Your task to perform on an android device: What is the speed of a train? Image 0: 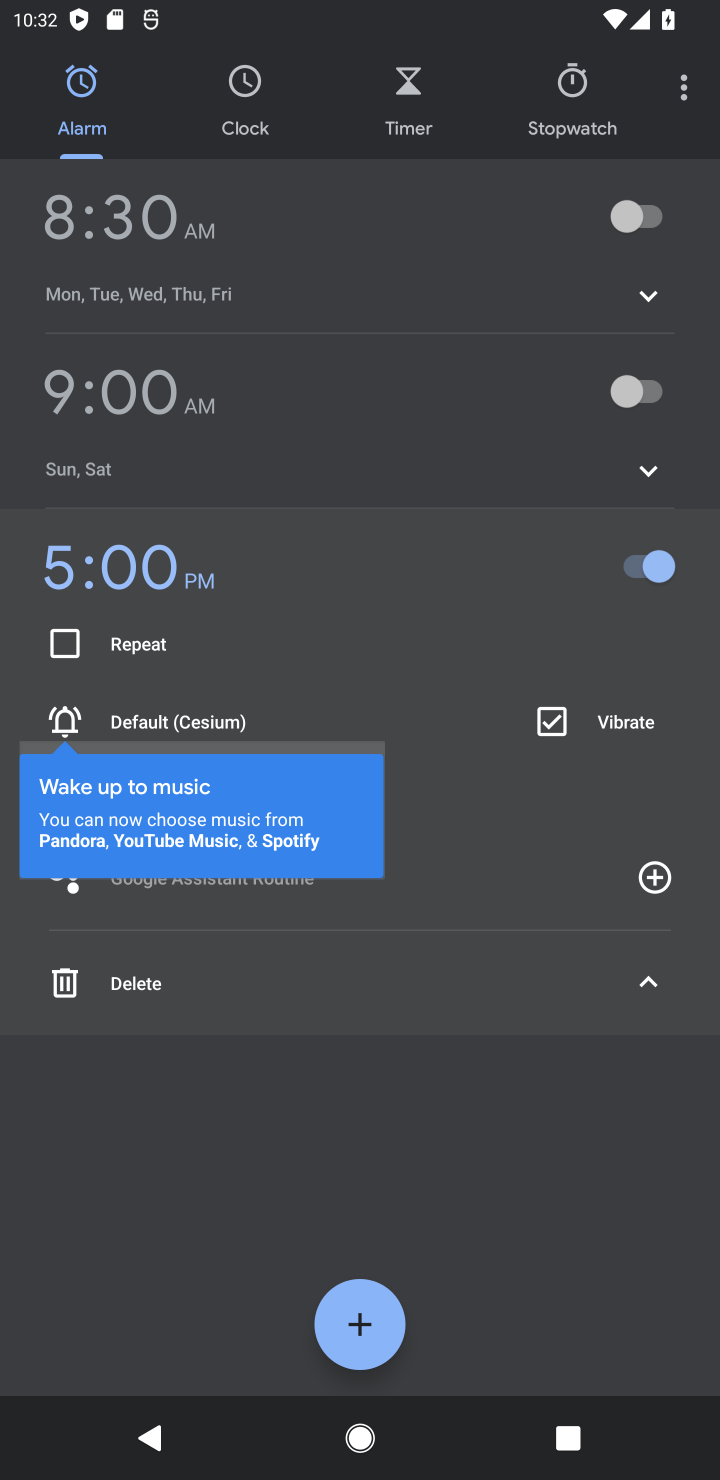
Step 0: press home button
Your task to perform on an android device: What is the speed of a train? Image 1: 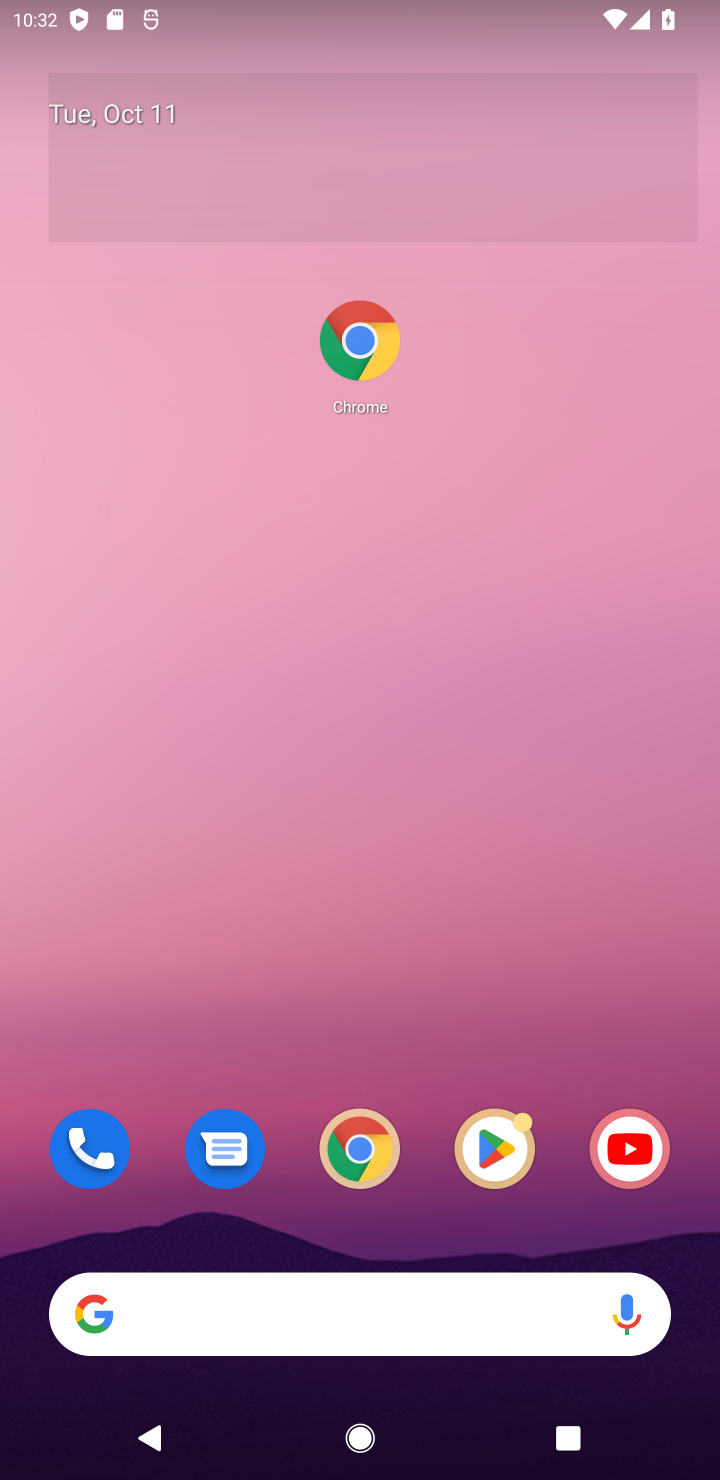
Step 1: drag from (397, 825) to (540, 431)
Your task to perform on an android device: What is the speed of a train? Image 2: 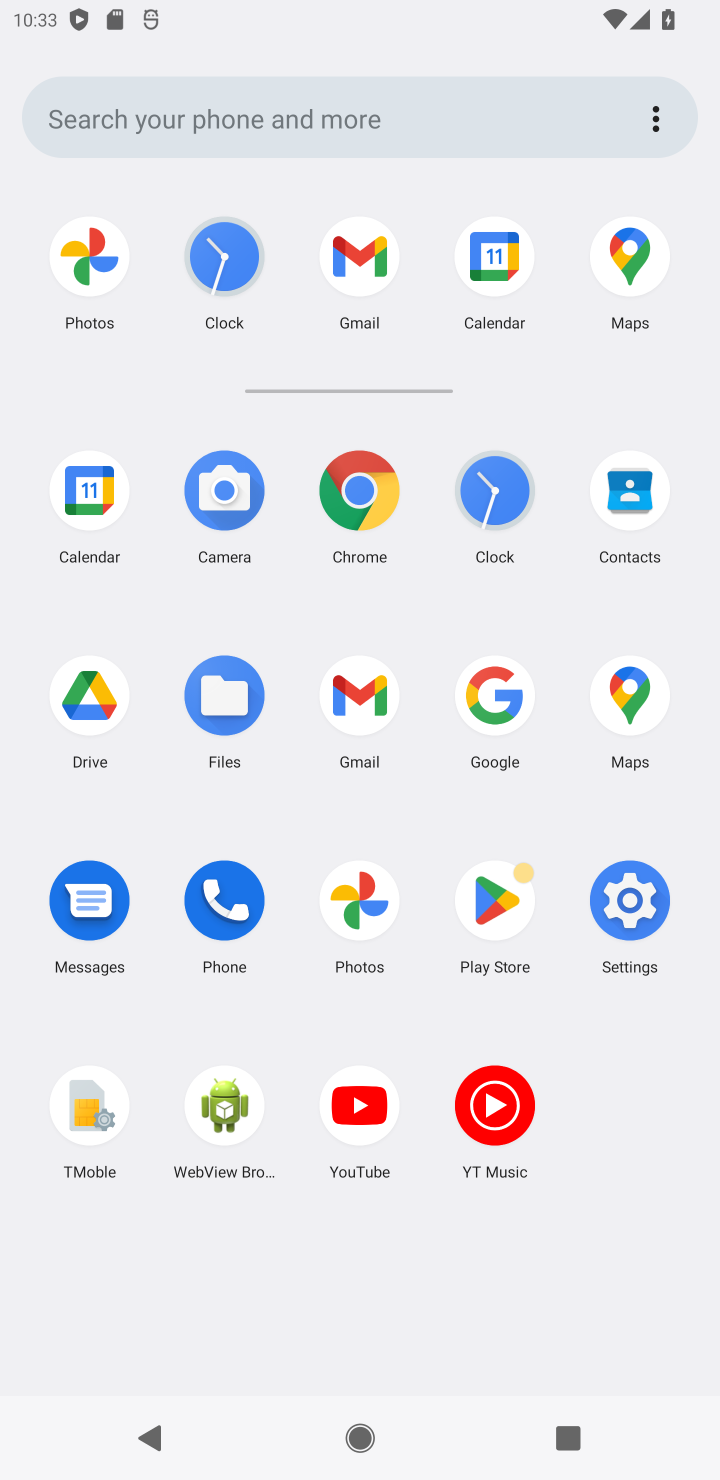
Step 2: click (356, 512)
Your task to perform on an android device: What is the speed of a train? Image 3: 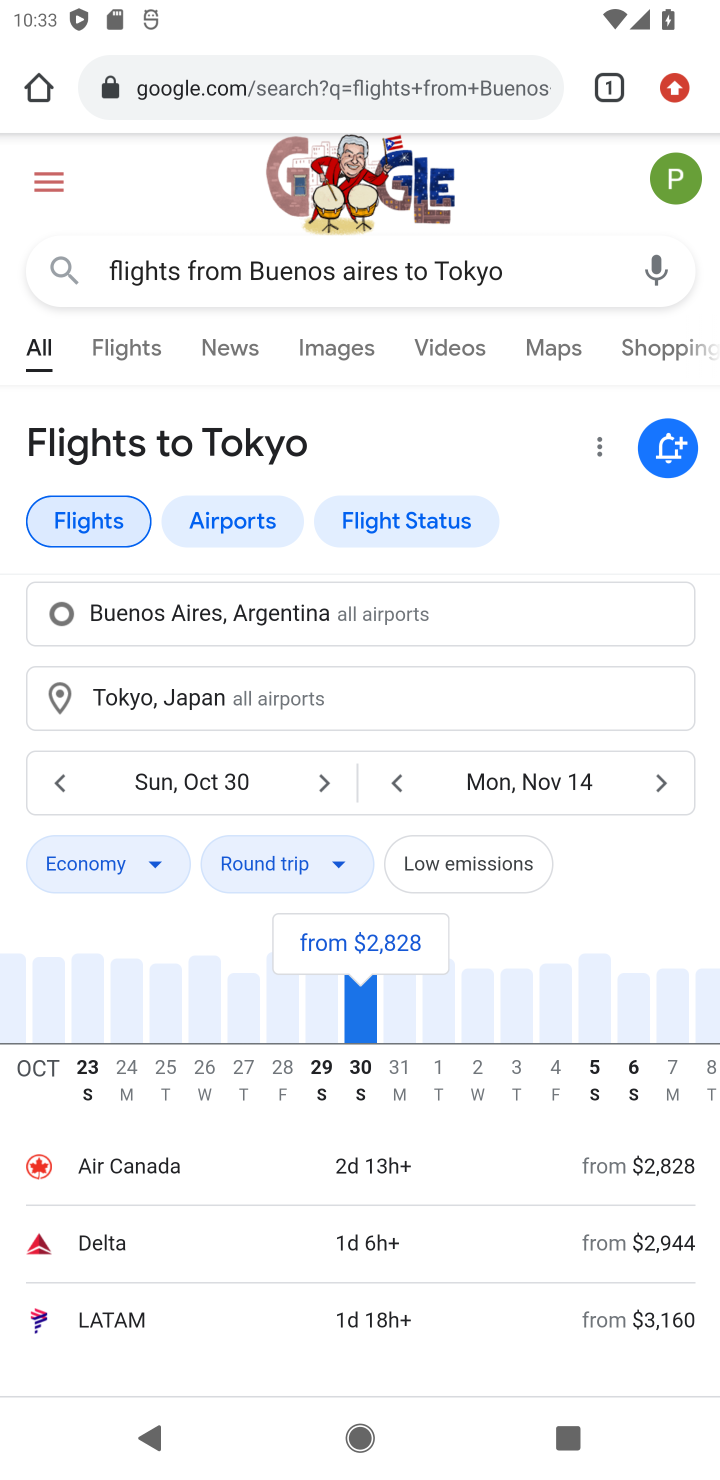
Step 3: click (522, 82)
Your task to perform on an android device: What is the speed of a train? Image 4: 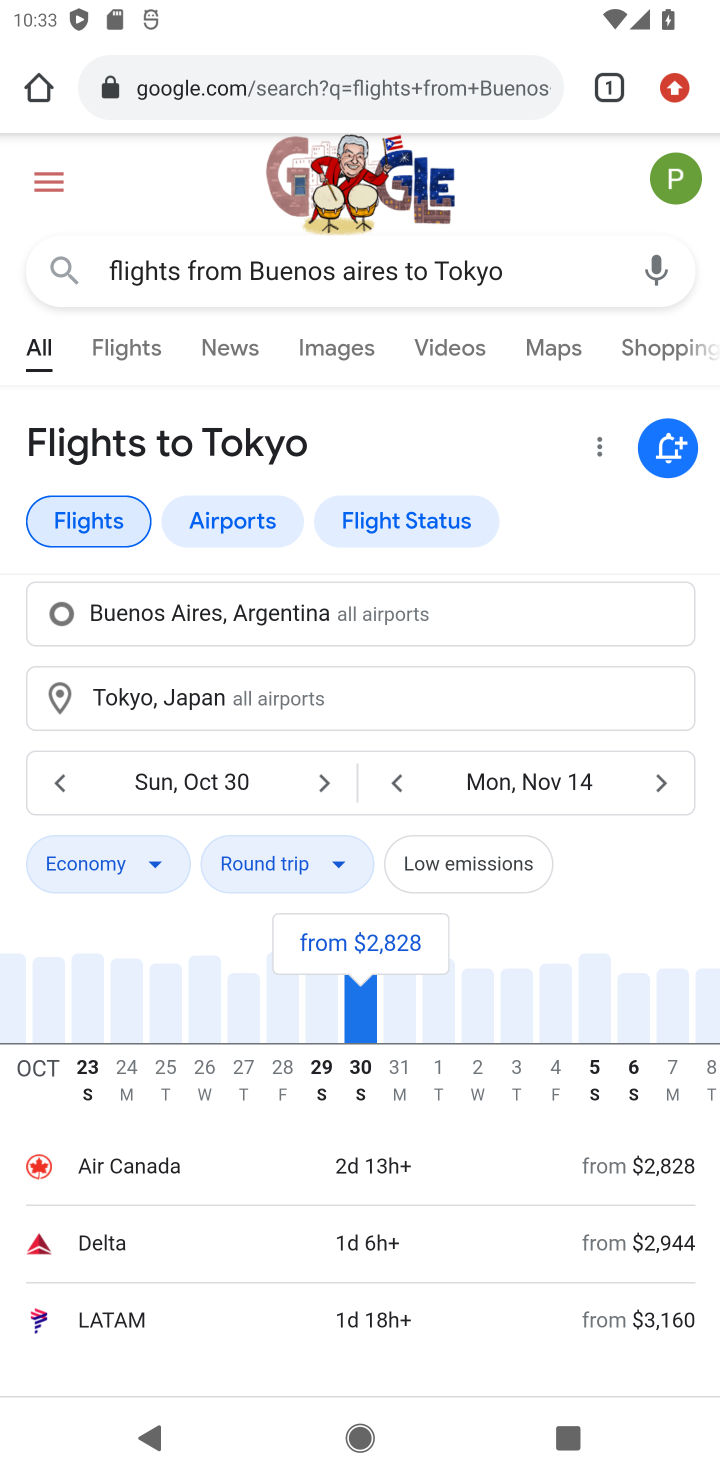
Step 4: click (522, 82)
Your task to perform on an android device: What is the speed of a train? Image 5: 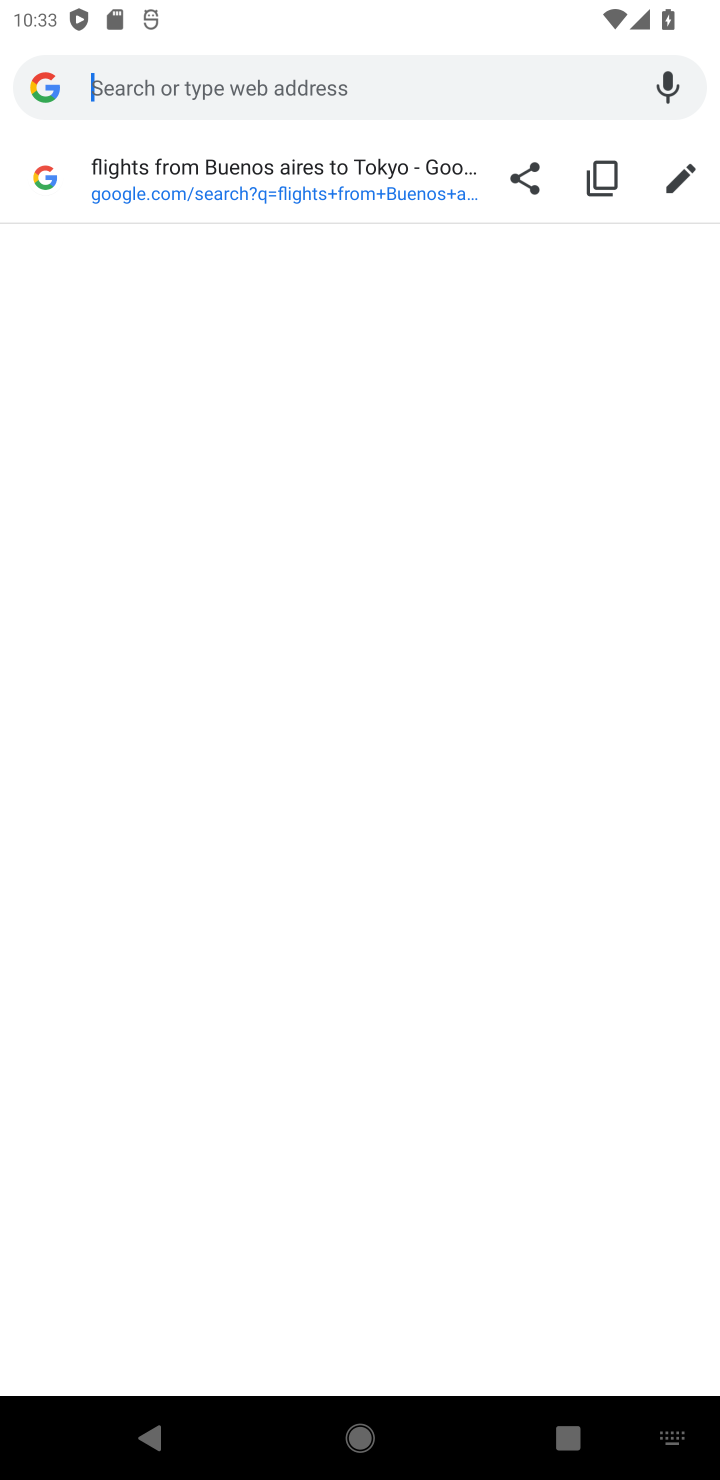
Step 5: type "What is the speed of a train?"
Your task to perform on an android device: What is the speed of a train? Image 6: 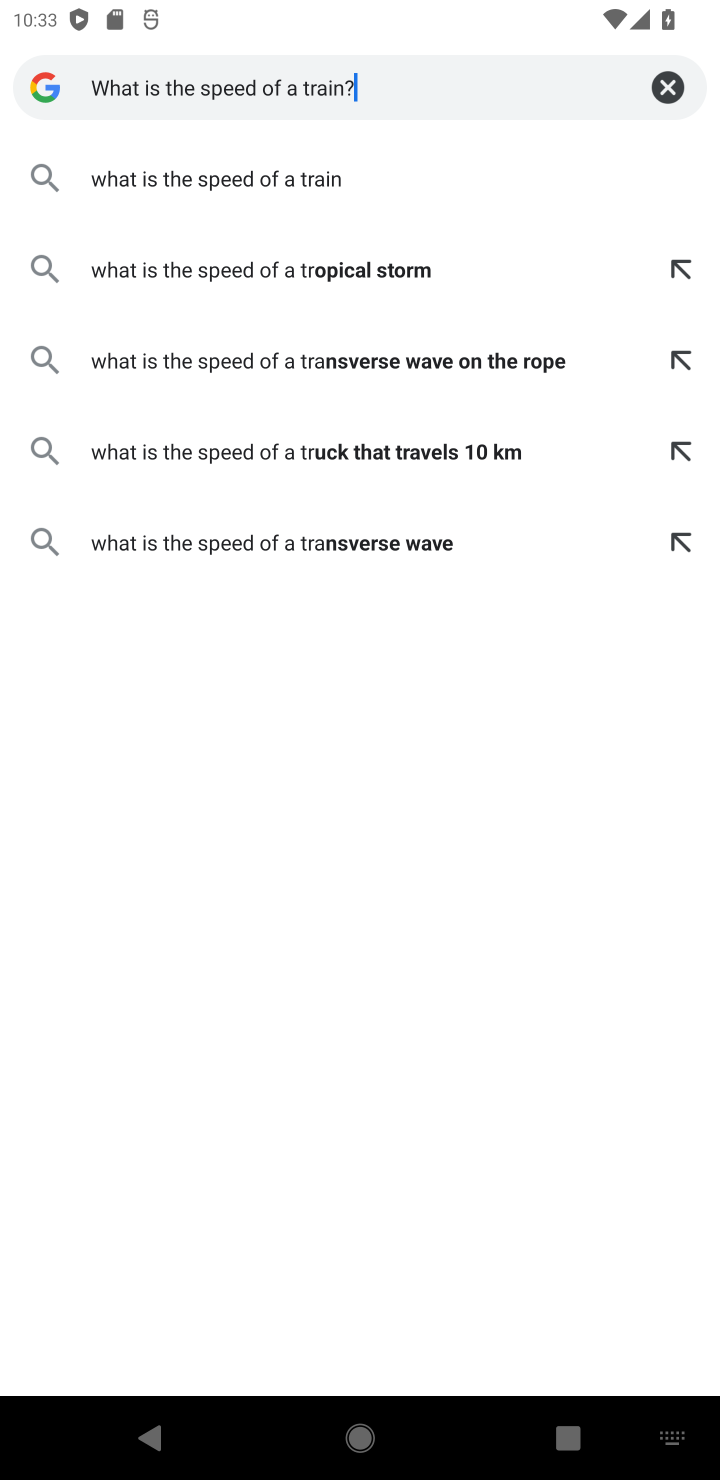
Step 6: press enter
Your task to perform on an android device: What is the speed of a train? Image 7: 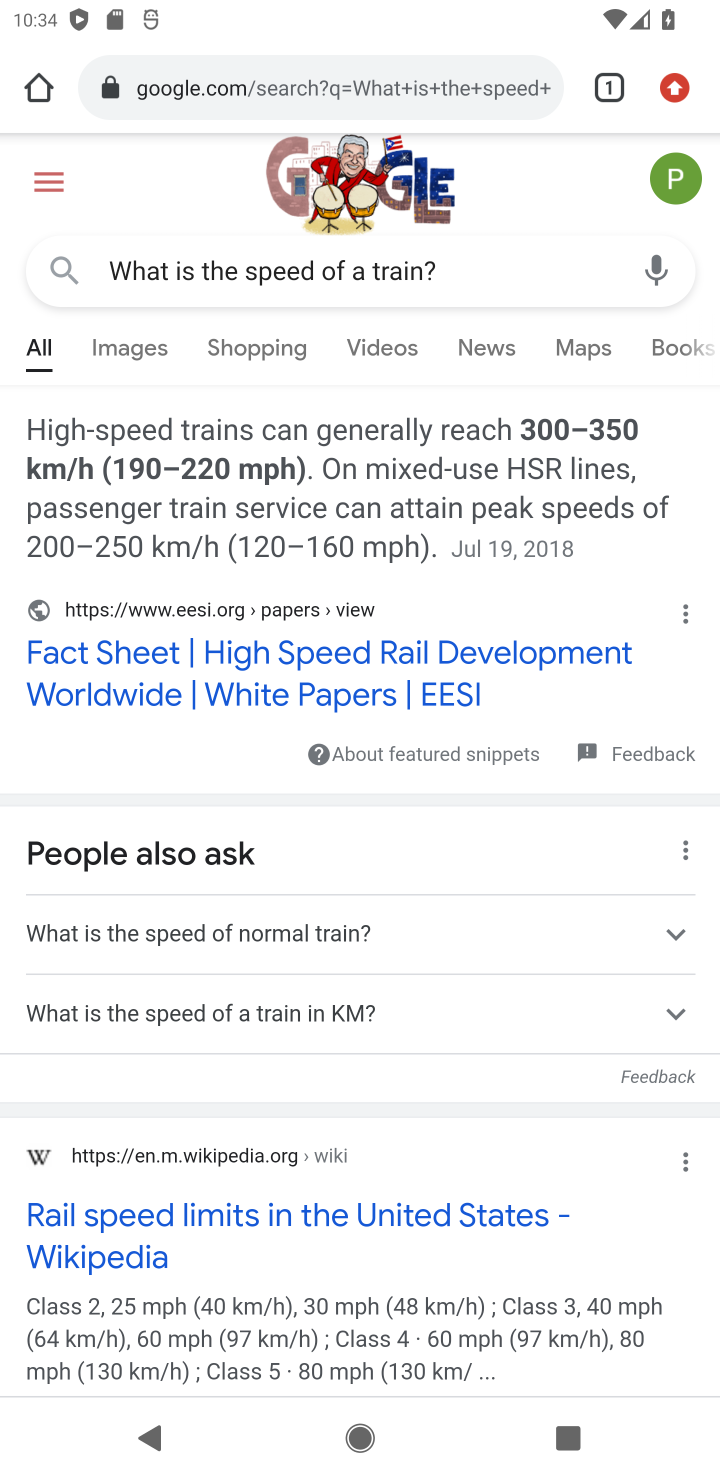
Step 7: task complete